Your task to perform on an android device: Open Yahoo.com Image 0: 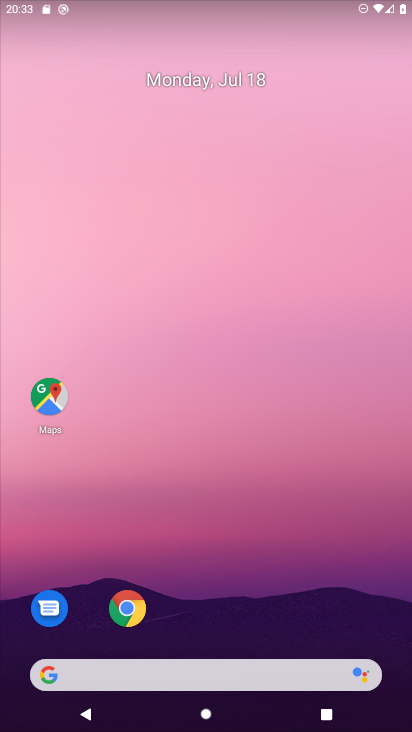
Step 0: click (132, 610)
Your task to perform on an android device: Open Yahoo.com Image 1: 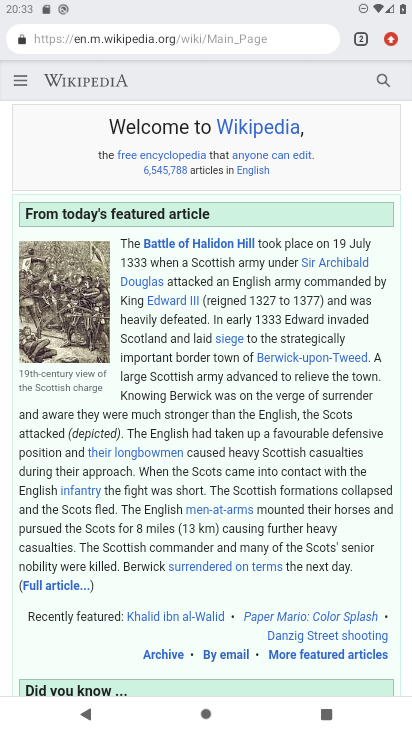
Step 1: click (364, 39)
Your task to perform on an android device: Open Yahoo.com Image 2: 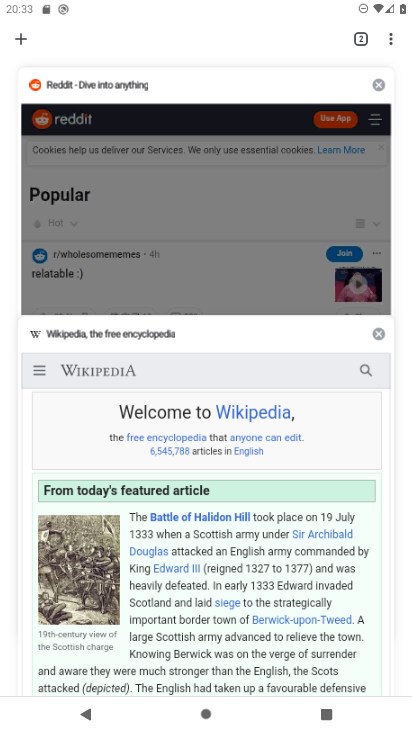
Step 2: click (26, 42)
Your task to perform on an android device: Open Yahoo.com Image 3: 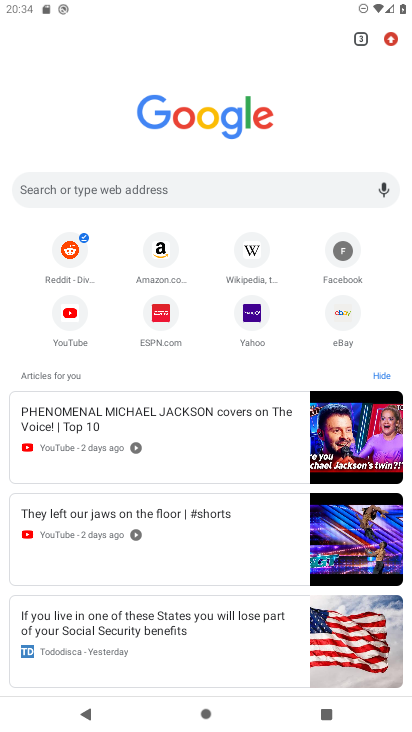
Step 3: click (252, 314)
Your task to perform on an android device: Open Yahoo.com Image 4: 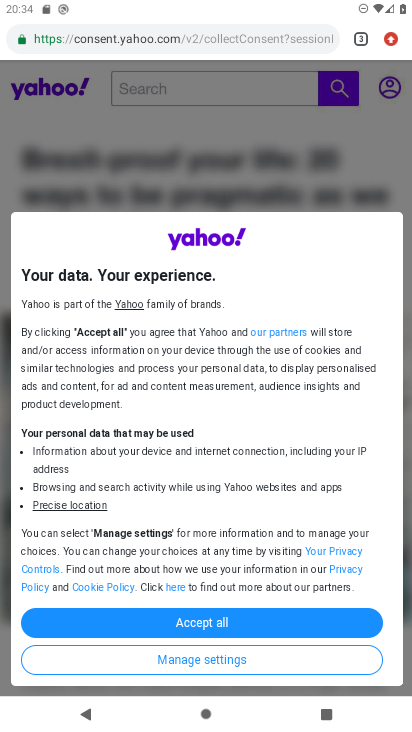
Step 4: task complete